Your task to perform on an android device: star an email in the gmail app Image 0: 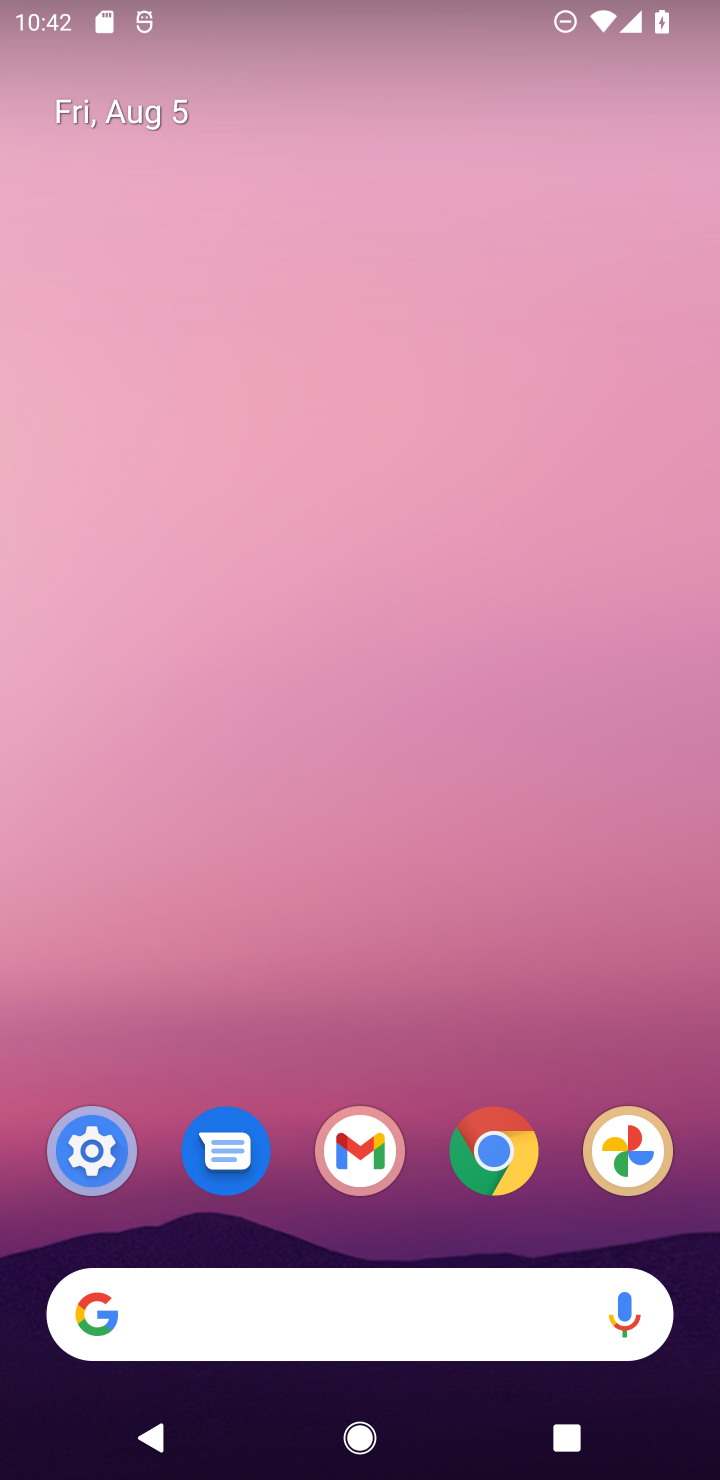
Step 0: click (355, 1156)
Your task to perform on an android device: star an email in the gmail app Image 1: 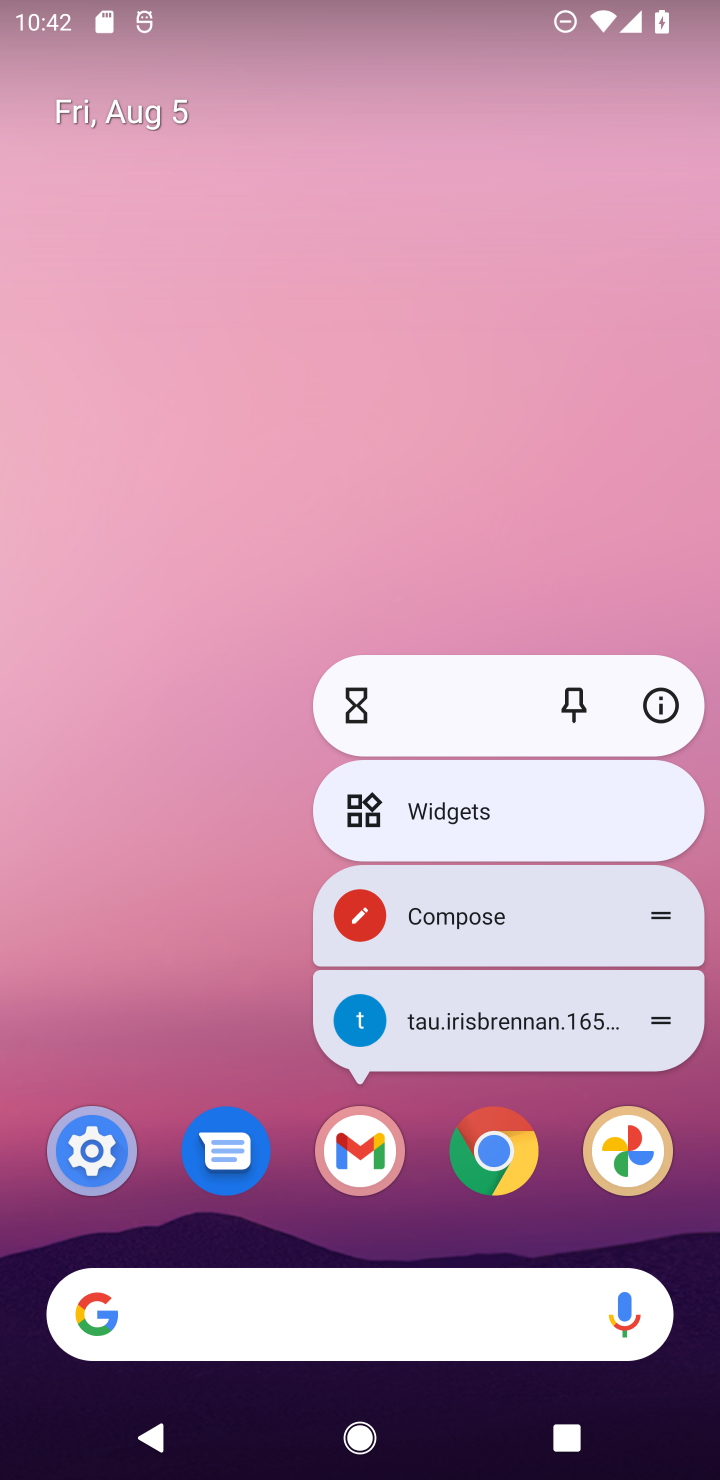
Step 1: click (355, 1164)
Your task to perform on an android device: star an email in the gmail app Image 2: 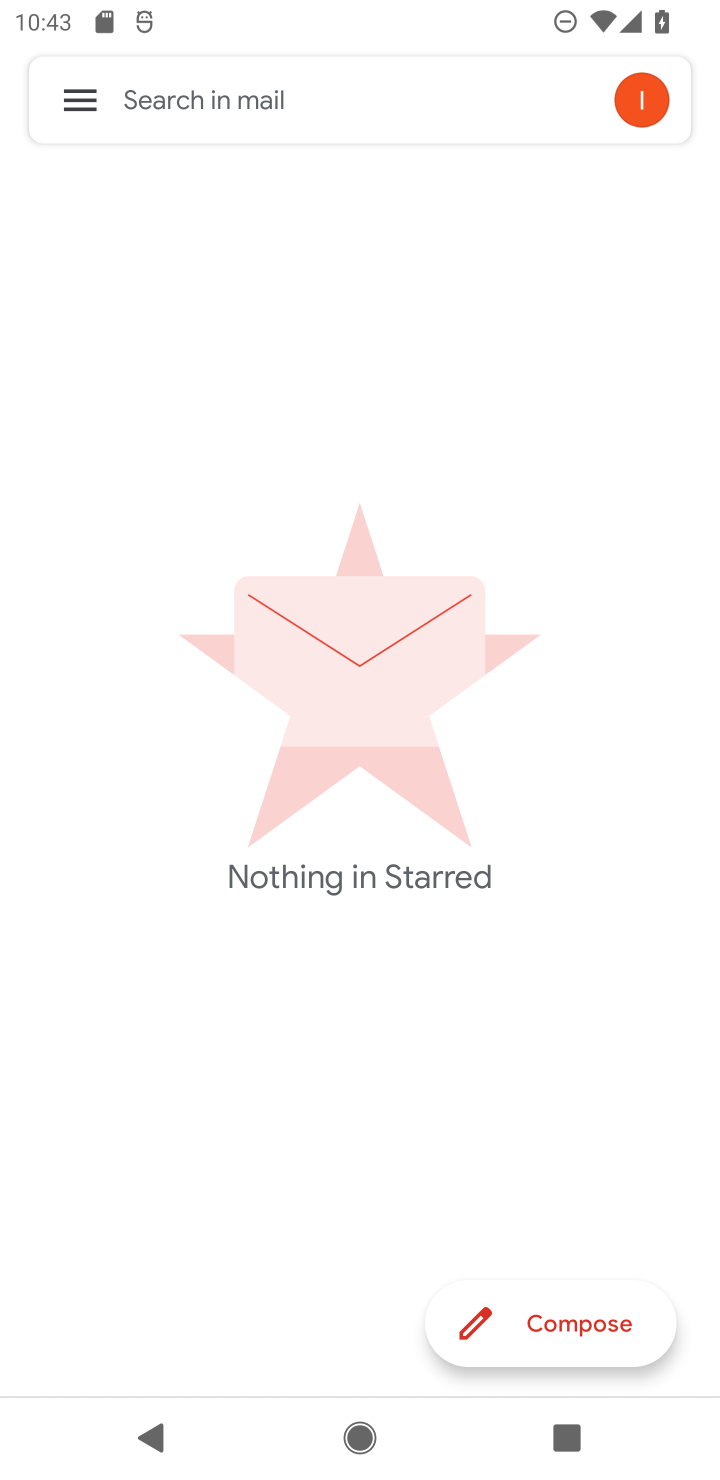
Step 2: click (73, 99)
Your task to perform on an android device: star an email in the gmail app Image 3: 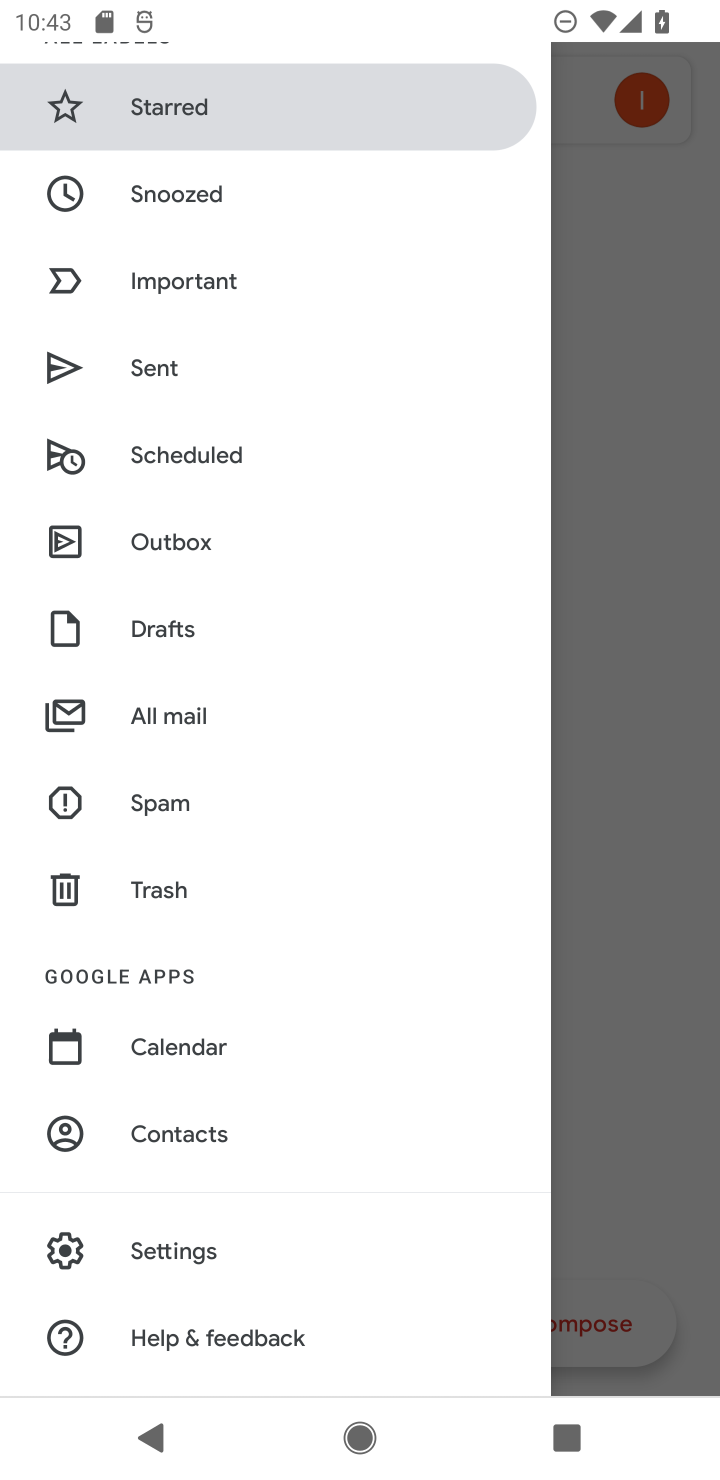
Step 3: click (160, 724)
Your task to perform on an android device: star an email in the gmail app Image 4: 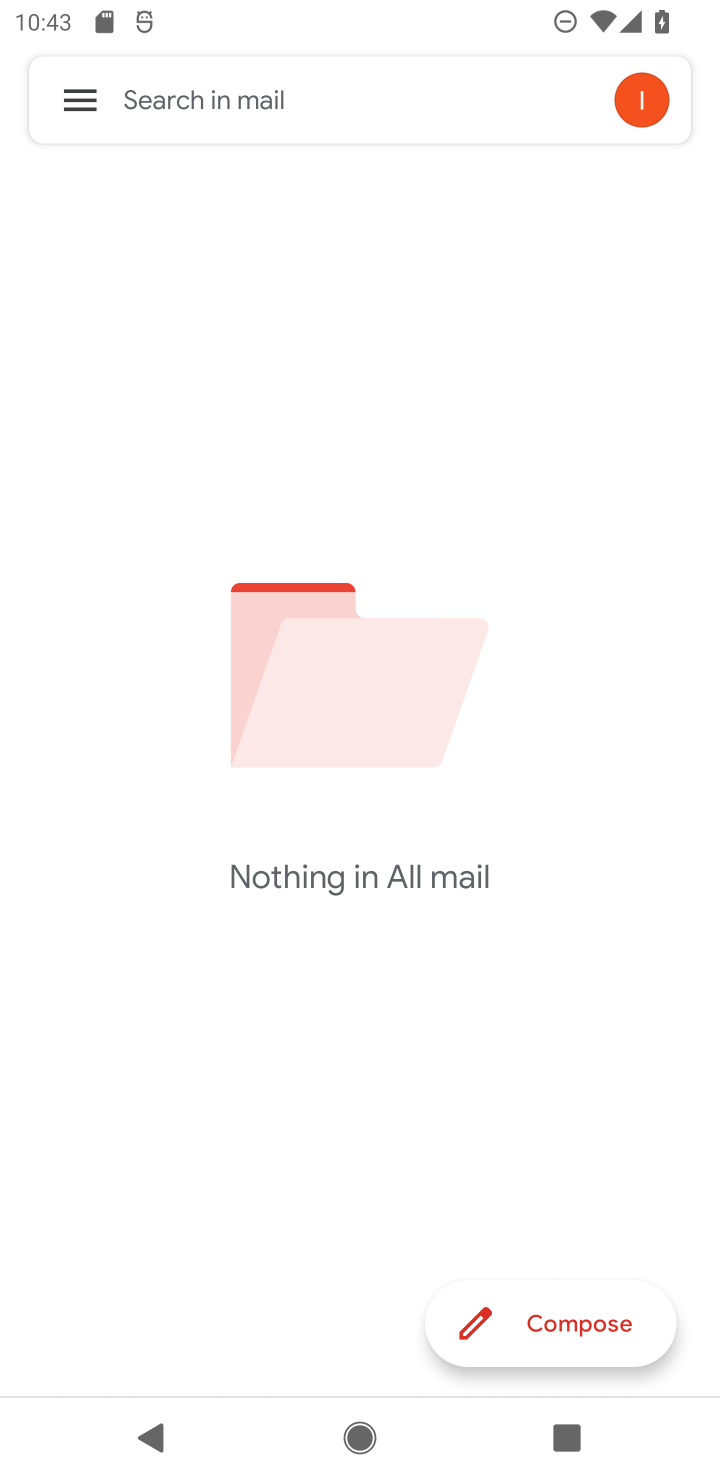
Step 4: task complete